Your task to perform on an android device: Go to Google maps Image 0: 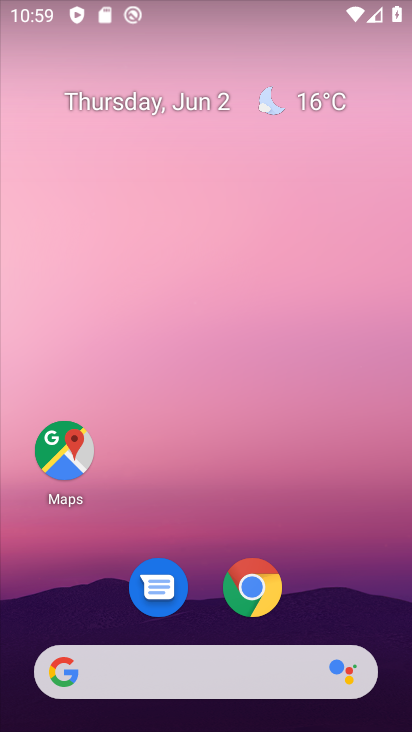
Step 0: click (62, 454)
Your task to perform on an android device: Go to Google maps Image 1: 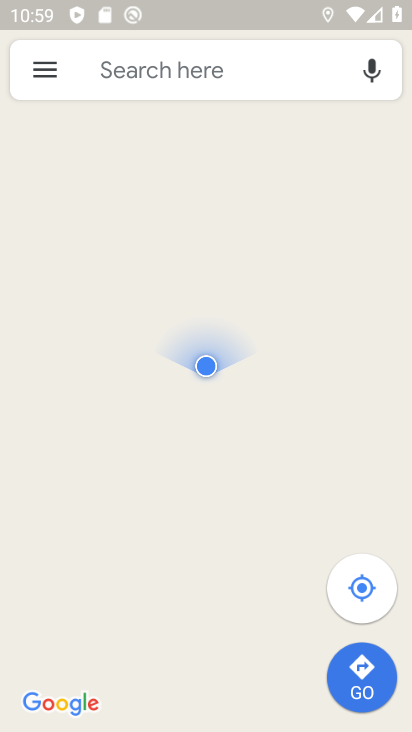
Step 1: task complete